Your task to perform on an android device: Open sound settings Image 0: 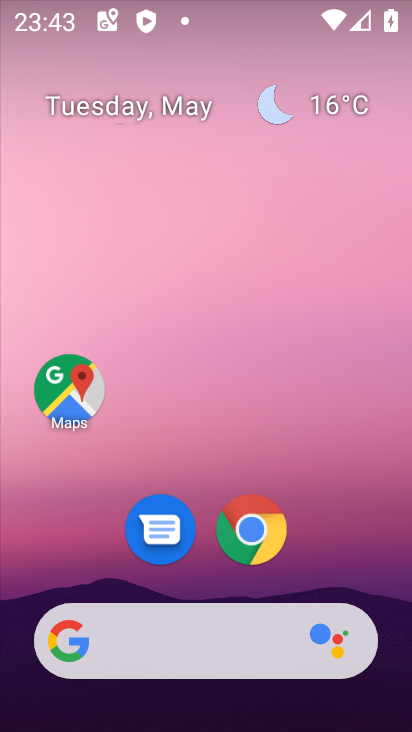
Step 0: drag from (79, 593) to (216, 192)
Your task to perform on an android device: Open sound settings Image 1: 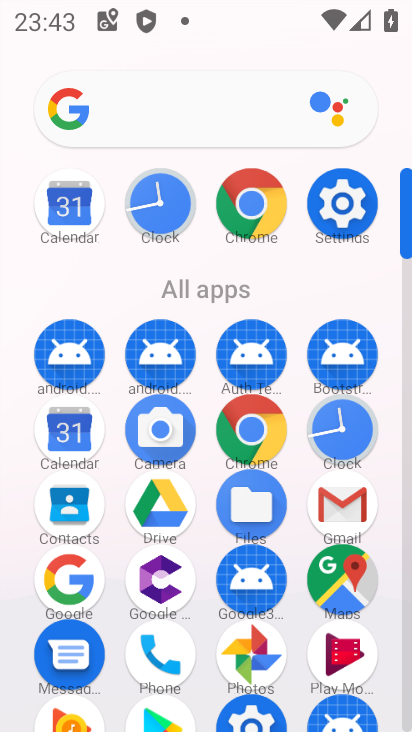
Step 1: drag from (133, 600) to (229, 320)
Your task to perform on an android device: Open sound settings Image 2: 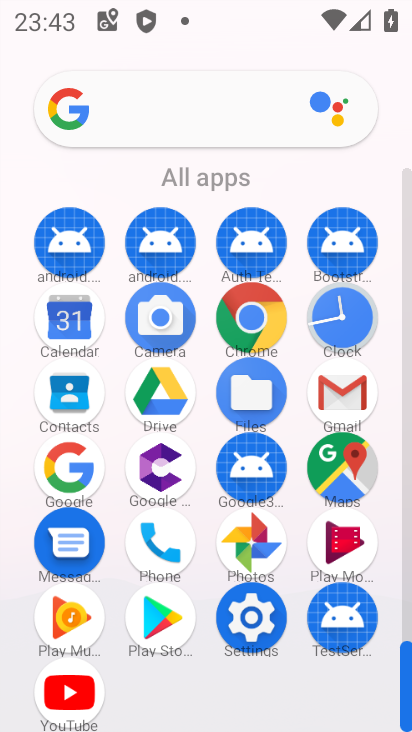
Step 2: click (253, 614)
Your task to perform on an android device: Open sound settings Image 3: 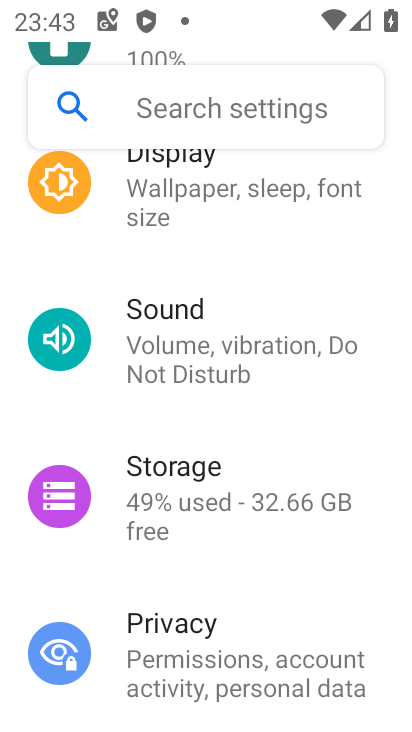
Step 3: drag from (256, 215) to (228, 561)
Your task to perform on an android device: Open sound settings Image 4: 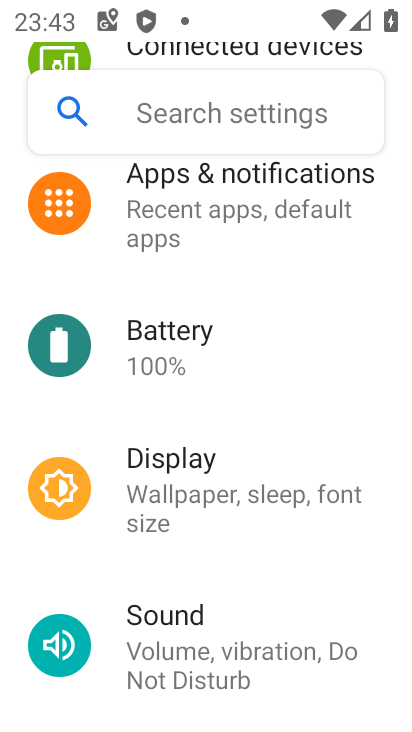
Step 4: click (176, 653)
Your task to perform on an android device: Open sound settings Image 5: 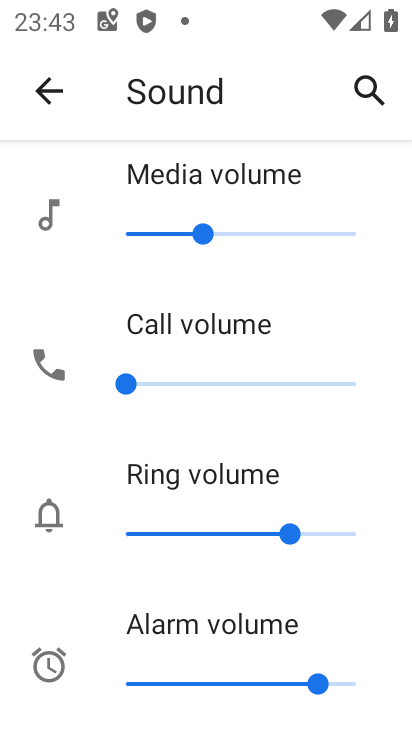
Step 5: task complete